Your task to perform on an android device: toggle javascript in the chrome app Image 0: 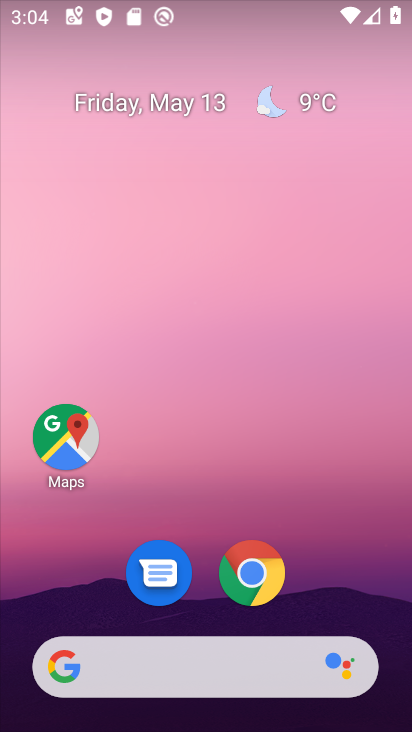
Step 0: click (264, 561)
Your task to perform on an android device: toggle javascript in the chrome app Image 1: 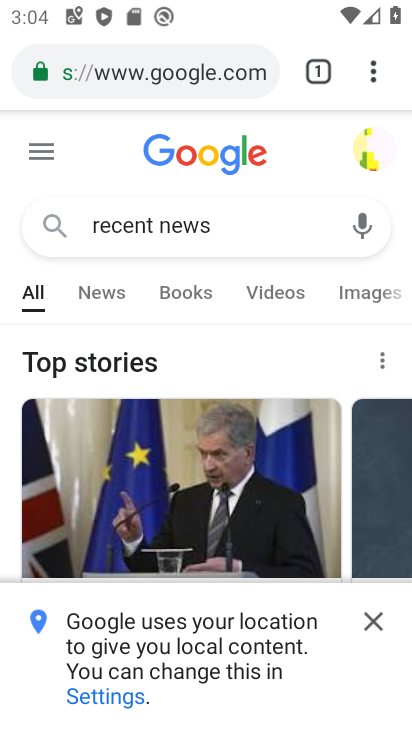
Step 1: drag from (372, 72) to (105, 570)
Your task to perform on an android device: toggle javascript in the chrome app Image 2: 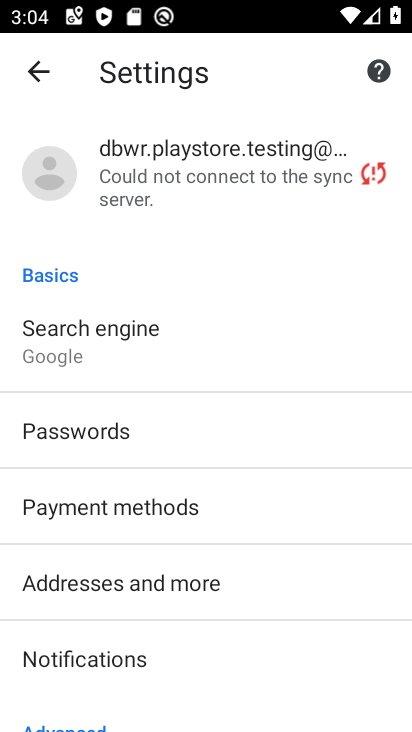
Step 2: drag from (168, 642) to (235, 177)
Your task to perform on an android device: toggle javascript in the chrome app Image 3: 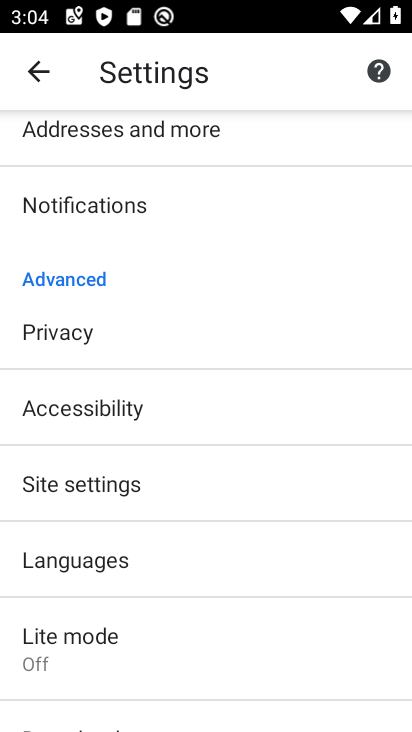
Step 3: click (77, 491)
Your task to perform on an android device: toggle javascript in the chrome app Image 4: 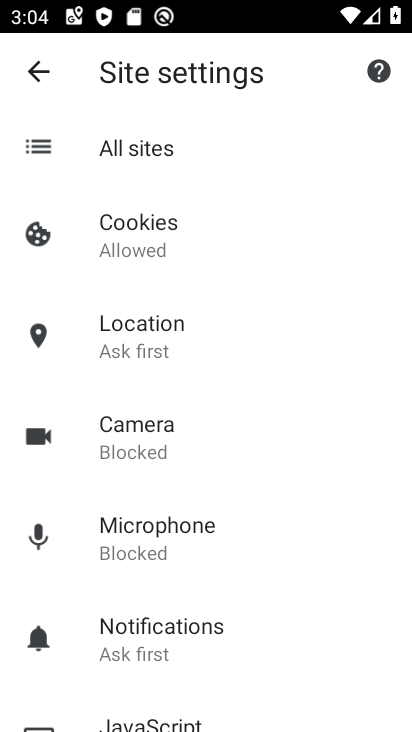
Step 4: click (155, 717)
Your task to perform on an android device: toggle javascript in the chrome app Image 5: 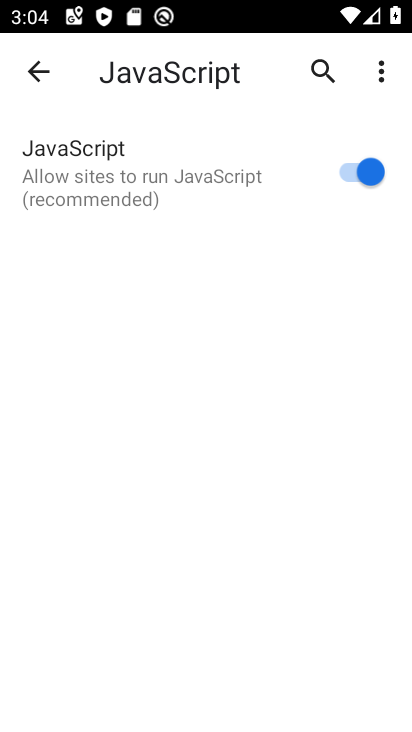
Step 5: click (349, 174)
Your task to perform on an android device: toggle javascript in the chrome app Image 6: 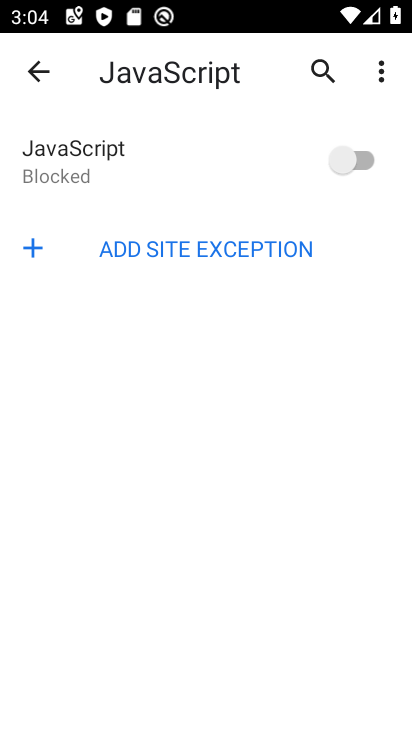
Step 6: task complete